Your task to perform on an android device: Clear the shopping cart on ebay.com. Search for logitech g933 on ebay.com, select the first entry, and add it to the cart. Image 0: 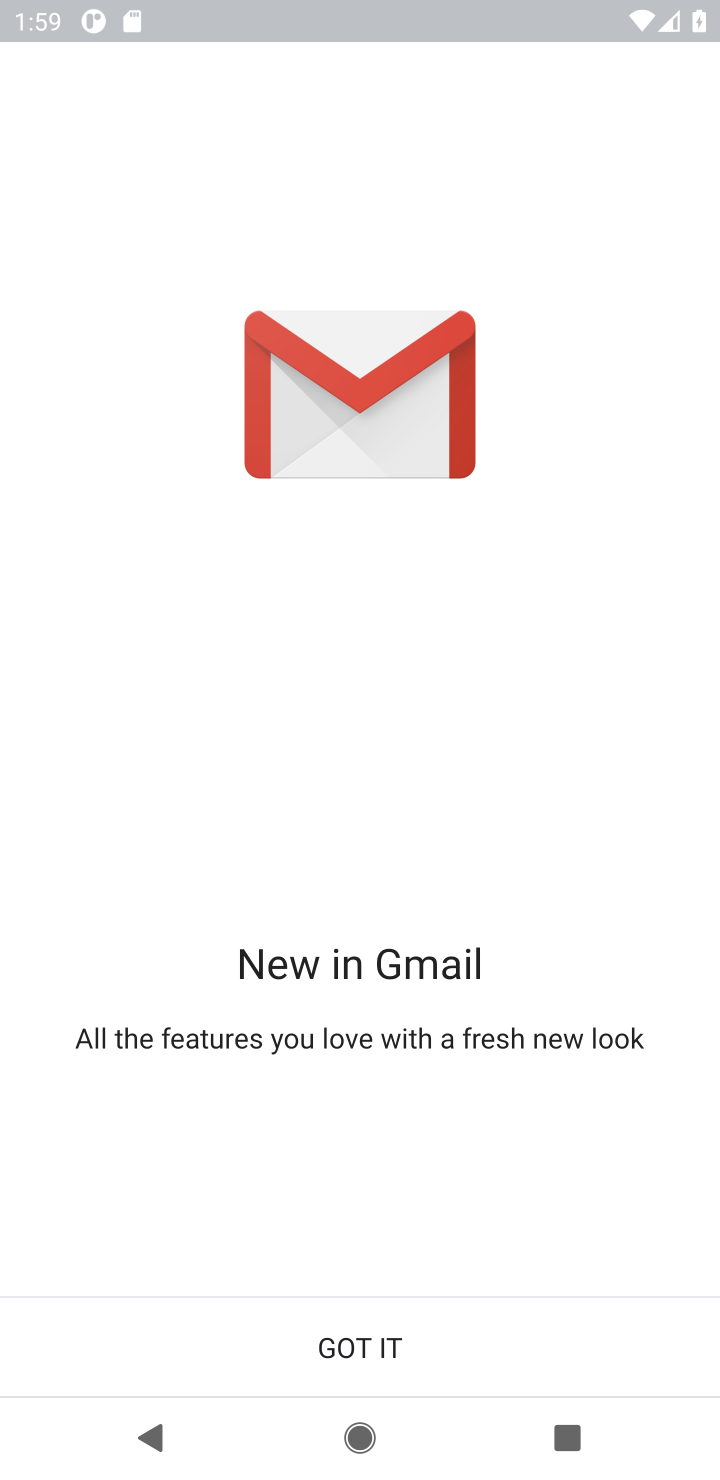
Step 0: press home button
Your task to perform on an android device: Clear the shopping cart on ebay.com. Search for logitech g933 on ebay.com, select the first entry, and add it to the cart. Image 1: 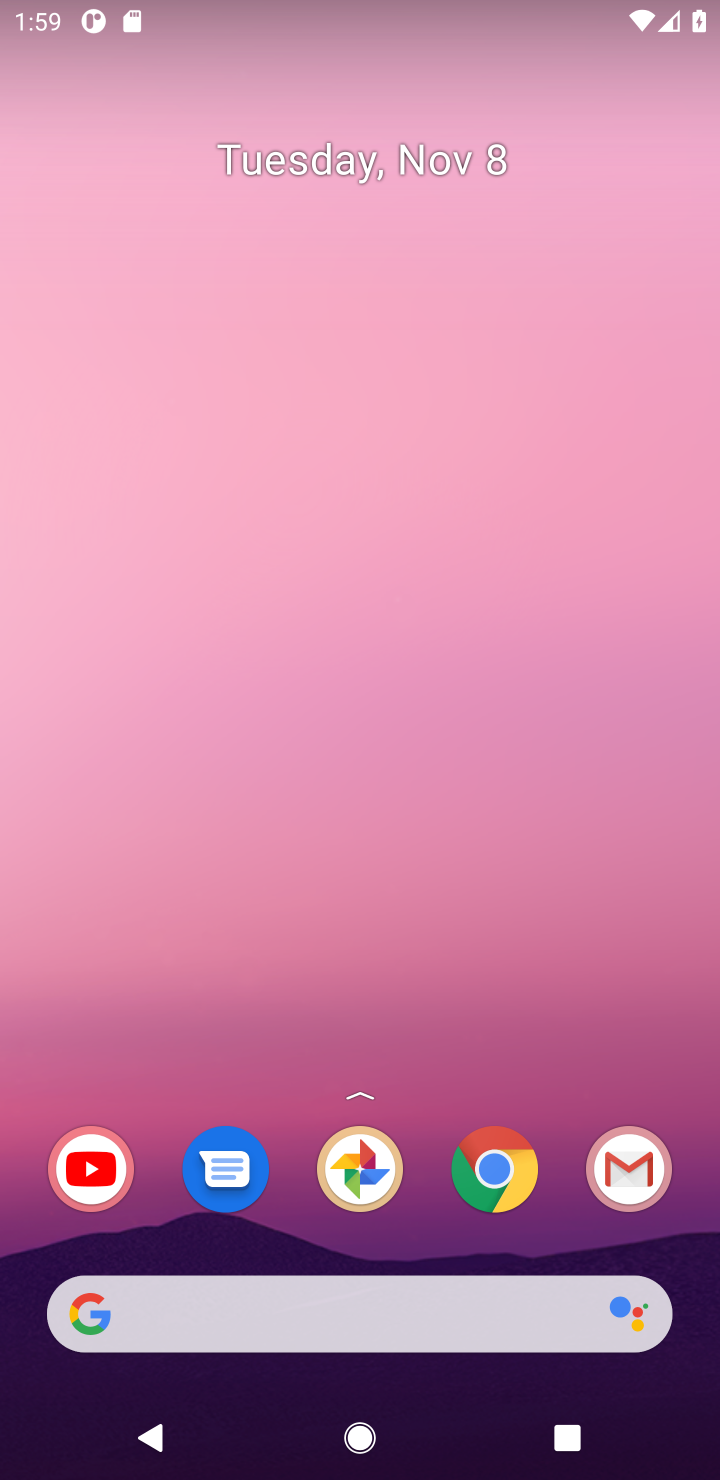
Step 1: click (460, 1191)
Your task to perform on an android device: Clear the shopping cart on ebay.com. Search for logitech g933 on ebay.com, select the first entry, and add it to the cart. Image 2: 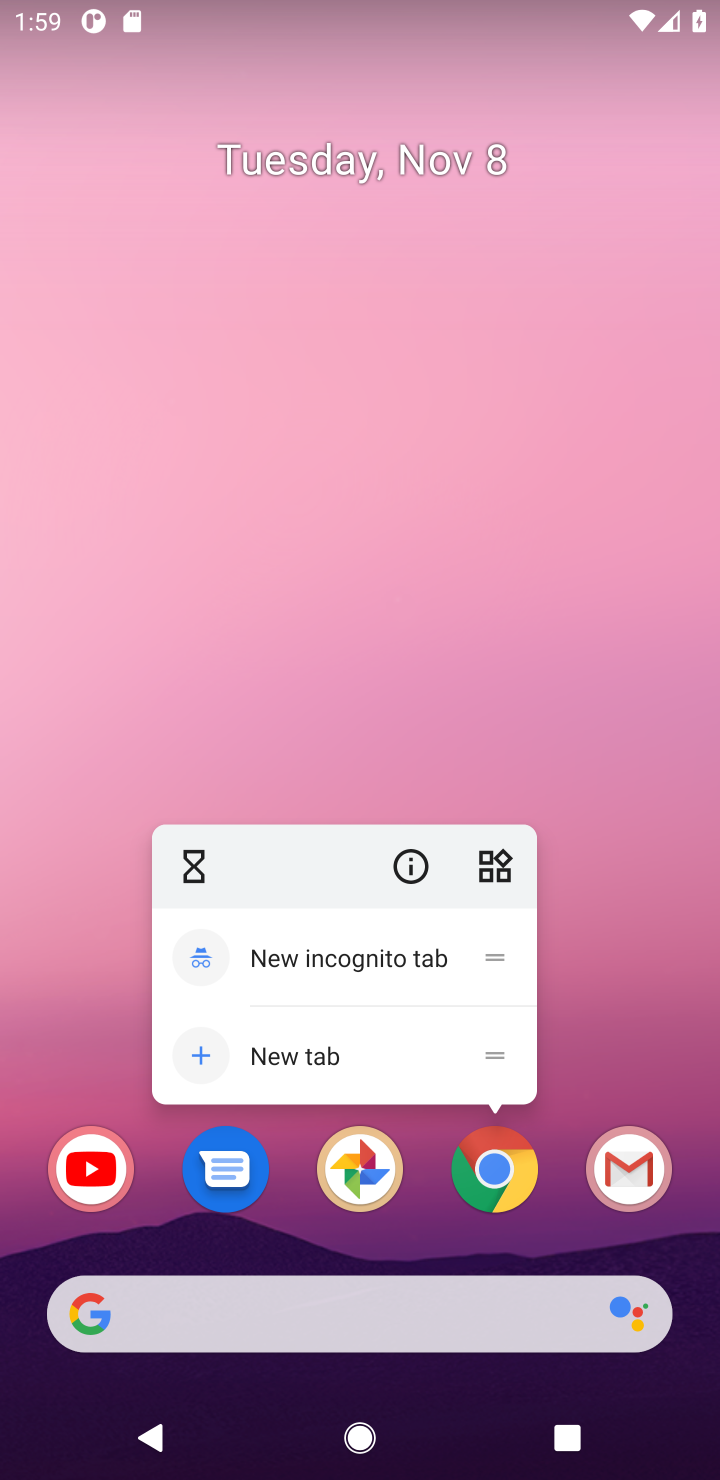
Step 2: click (512, 1170)
Your task to perform on an android device: Clear the shopping cart on ebay.com. Search for logitech g933 on ebay.com, select the first entry, and add it to the cart. Image 3: 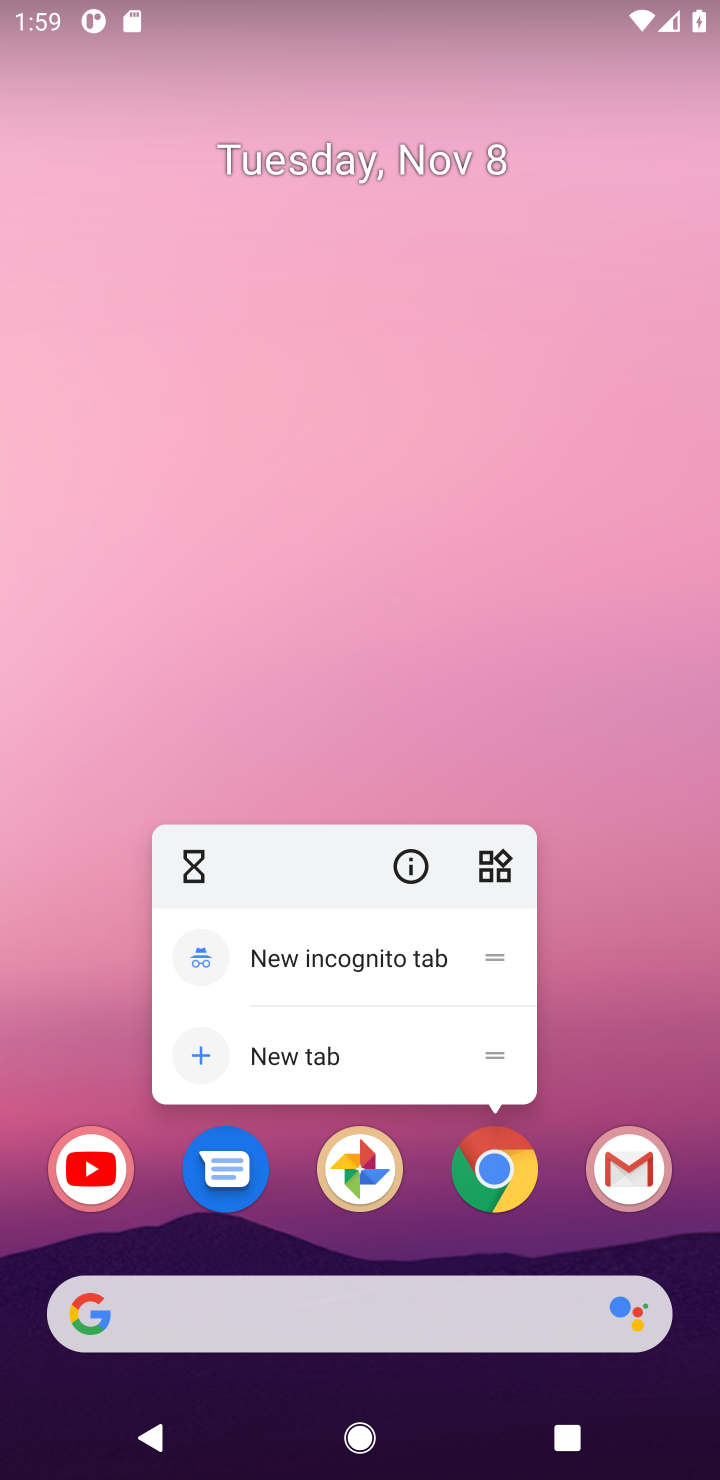
Step 3: click (455, 1179)
Your task to perform on an android device: Clear the shopping cart on ebay.com. Search for logitech g933 on ebay.com, select the first entry, and add it to the cart. Image 4: 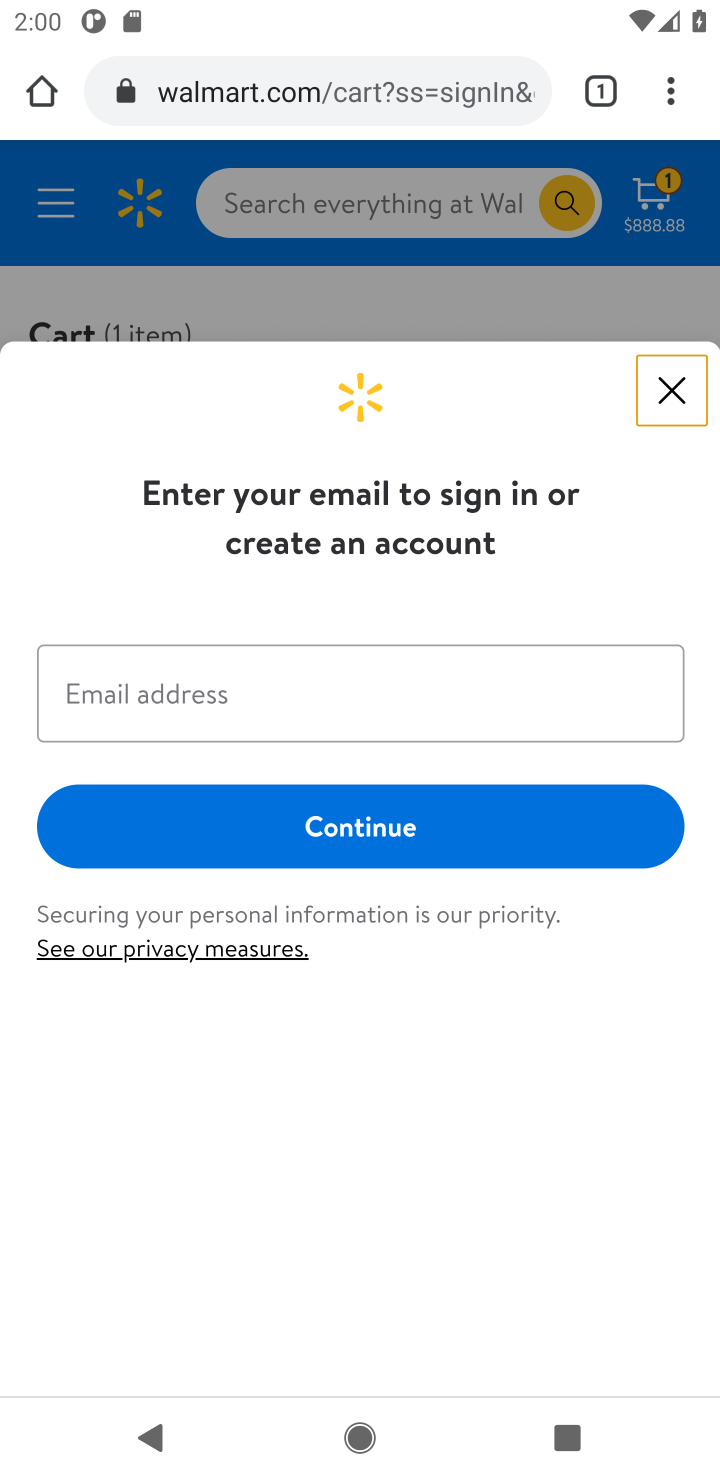
Step 4: click (375, 99)
Your task to perform on an android device: Clear the shopping cart on ebay.com. Search for logitech g933 on ebay.com, select the first entry, and add it to the cart. Image 5: 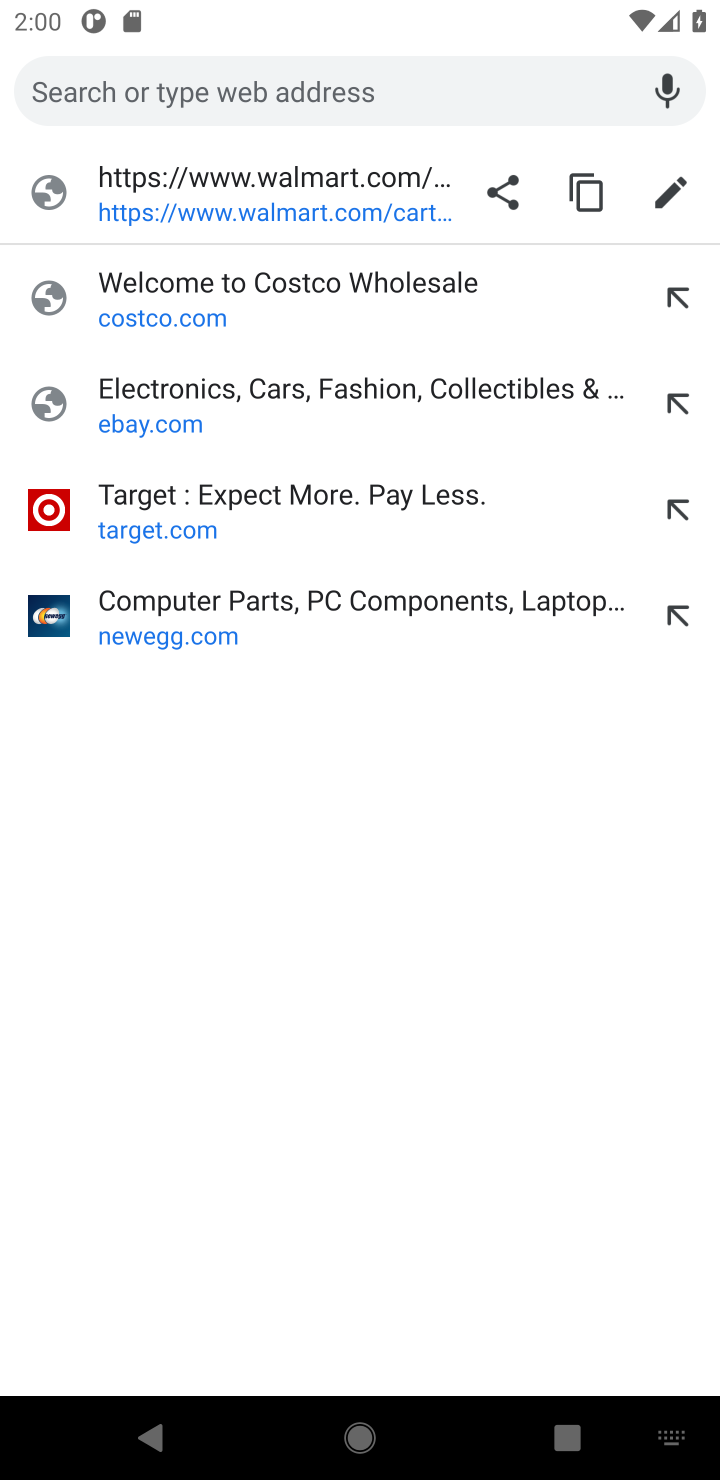
Step 5: type "ebay.com"
Your task to perform on an android device: Clear the shopping cart on ebay.com. Search for logitech g933 on ebay.com, select the first entry, and add it to the cart. Image 6: 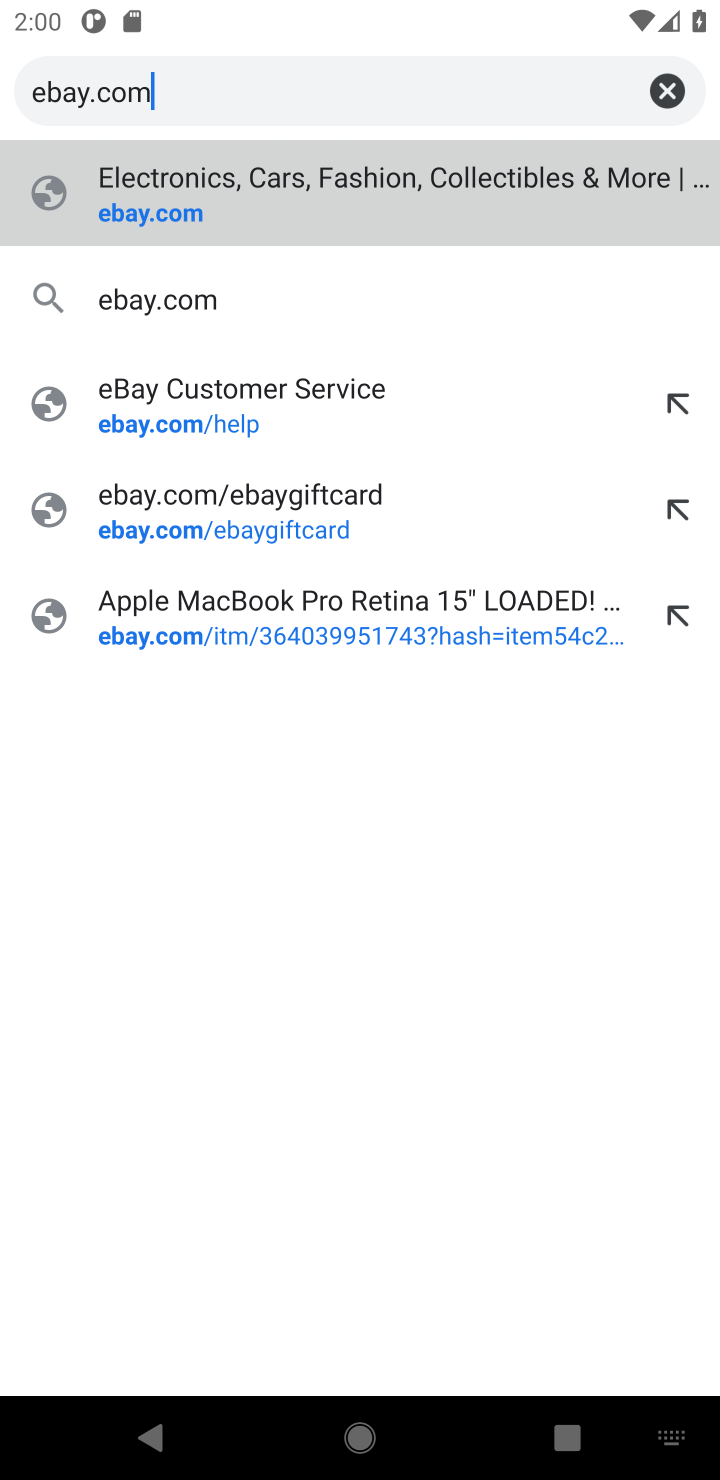
Step 6: click (217, 187)
Your task to perform on an android device: Clear the shopping cart on ebay.com. Search for logitech g933 on ebay.com, select the first entry, and add it to the cart. Image 7: 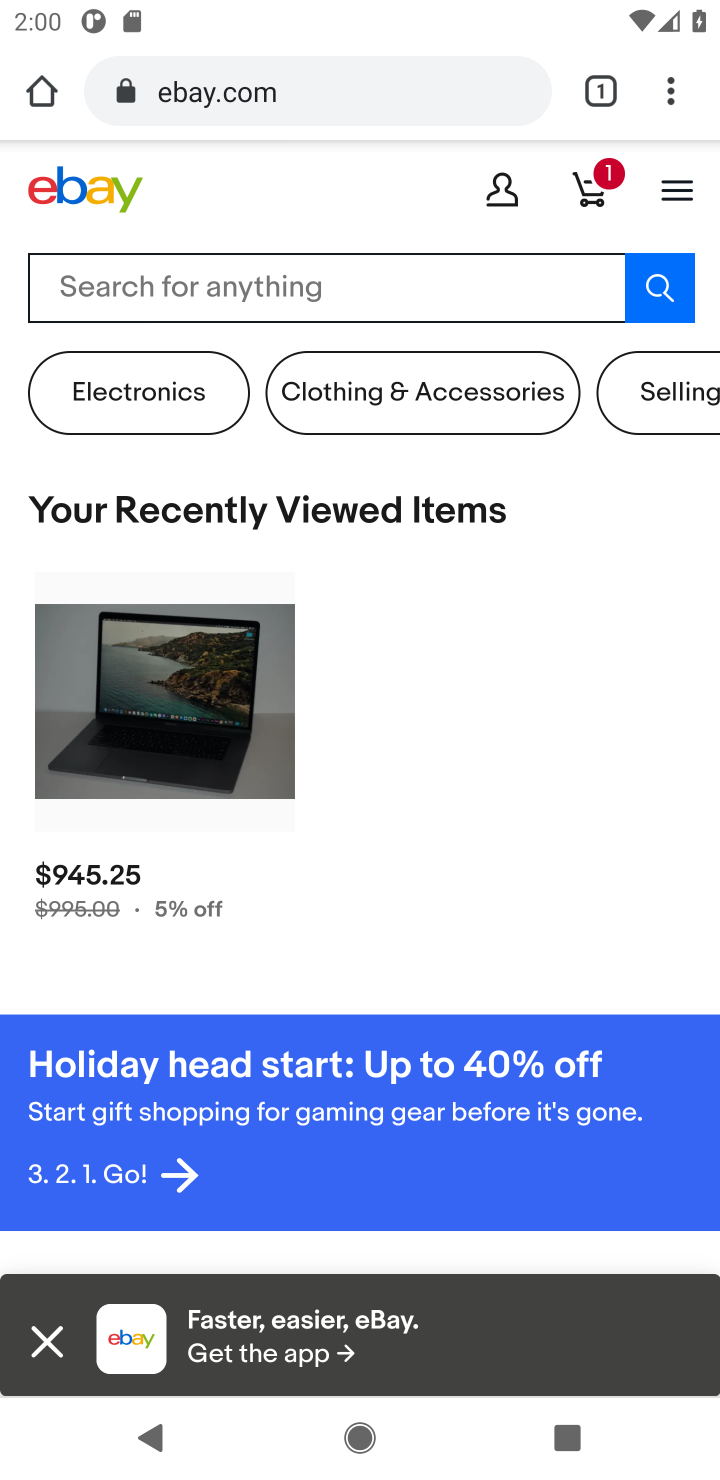
Step 7: click (256, 293)
Your task to perform on an android device: Clear the shopping cart on ebay.com. Search for logitech g933 on ebay.com, select the first entry, and add it to the cart. Image 8: 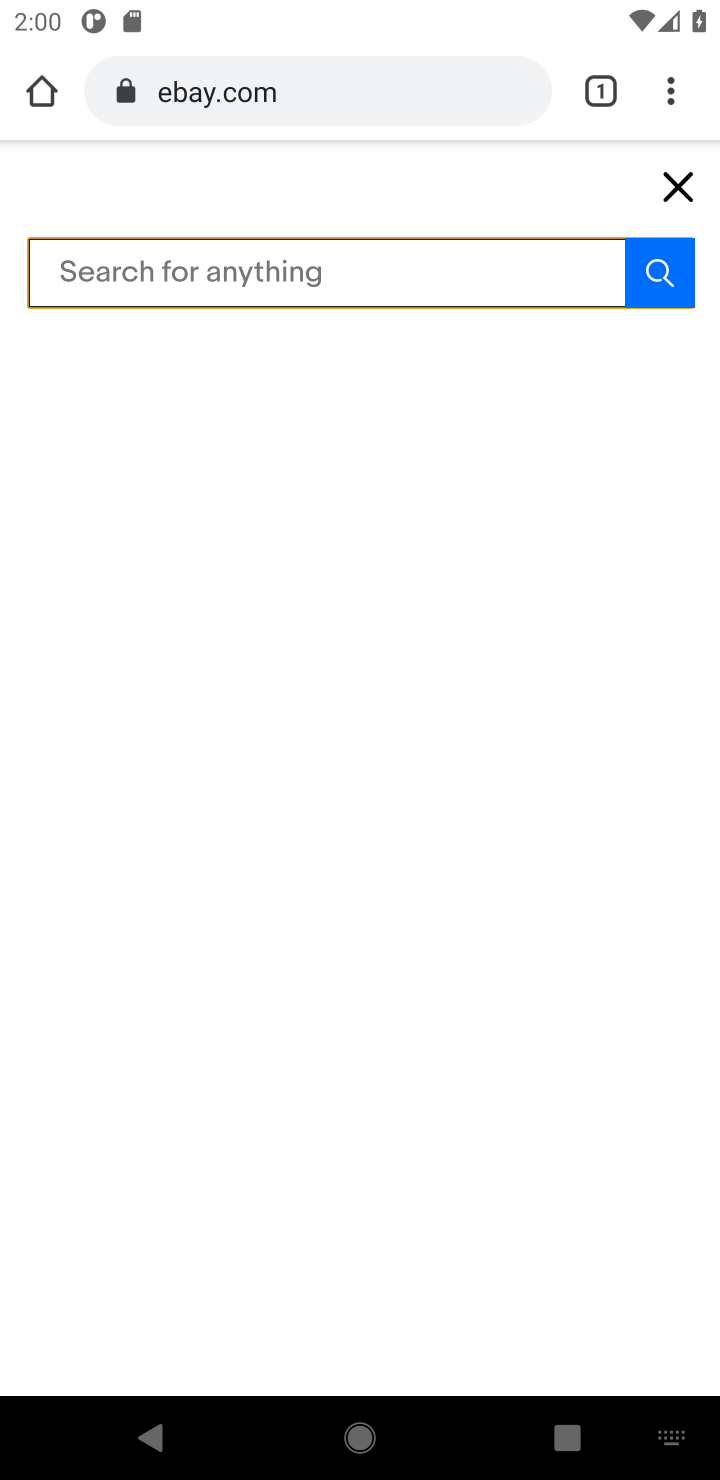
Step 8: type "logitech g933"
Your task to perform on an android device: Clear the shopping cart on ebay.com. Search for logitech g933 on ebay.com, select the first entry, and add it to the cart. Image 9: 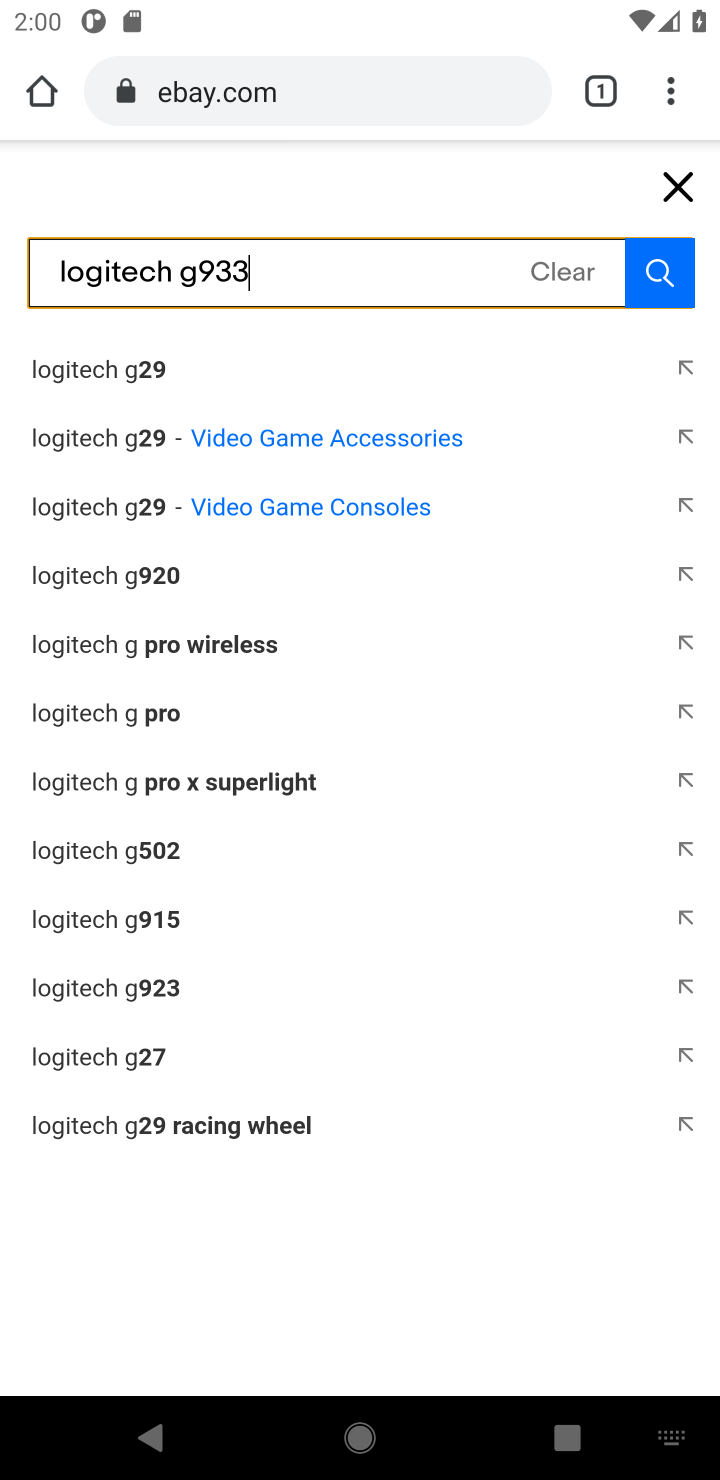
Step 9: press enter
Your task to perform on an android device: Clear the shopping cart on ebay.com. Search for logitech g933 on ebay.com, select the first entry, and add it to the cart. Image 10: 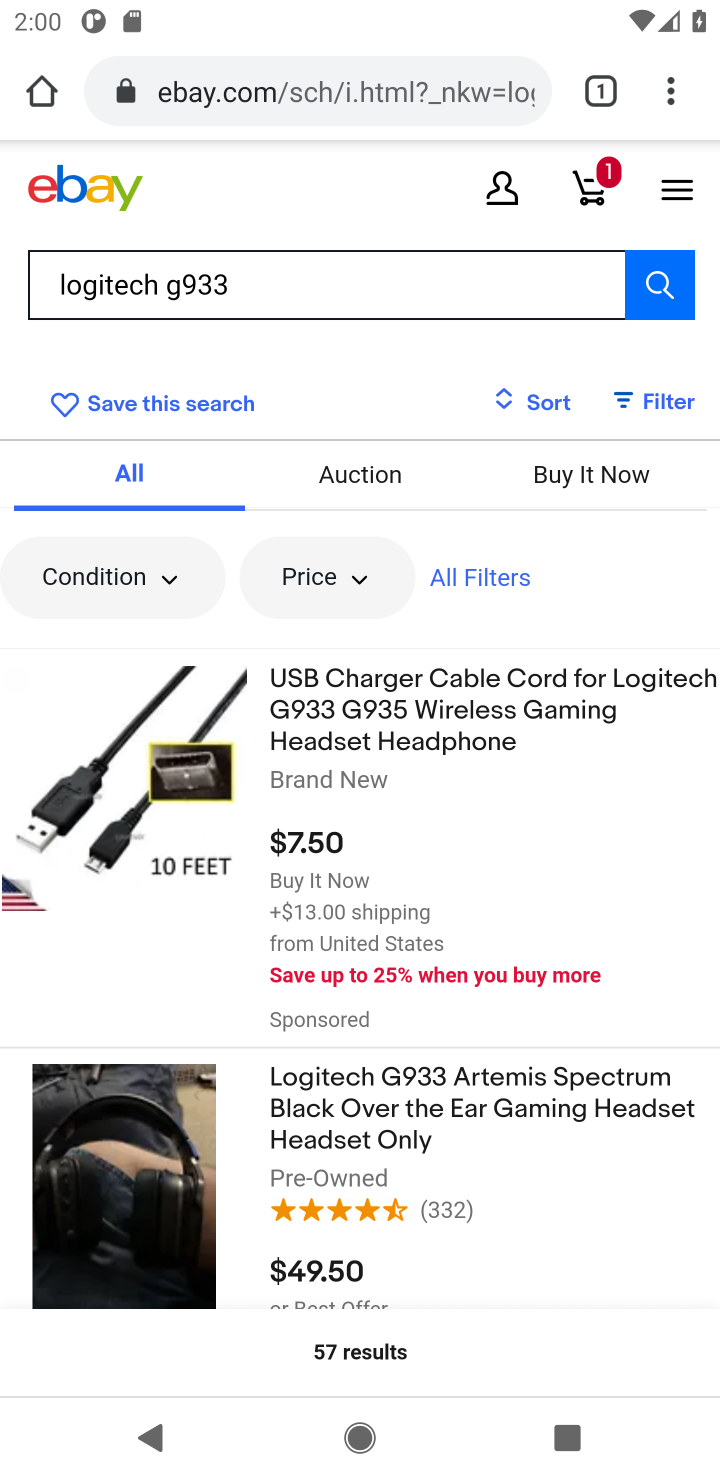
Step 10: click (258, 807)
Your task to perform on an android device: Clear the shopping cart on ebay.com. Search for logitech g933 on ebay.com, select the first entry, and add it to the cart. Image 11: 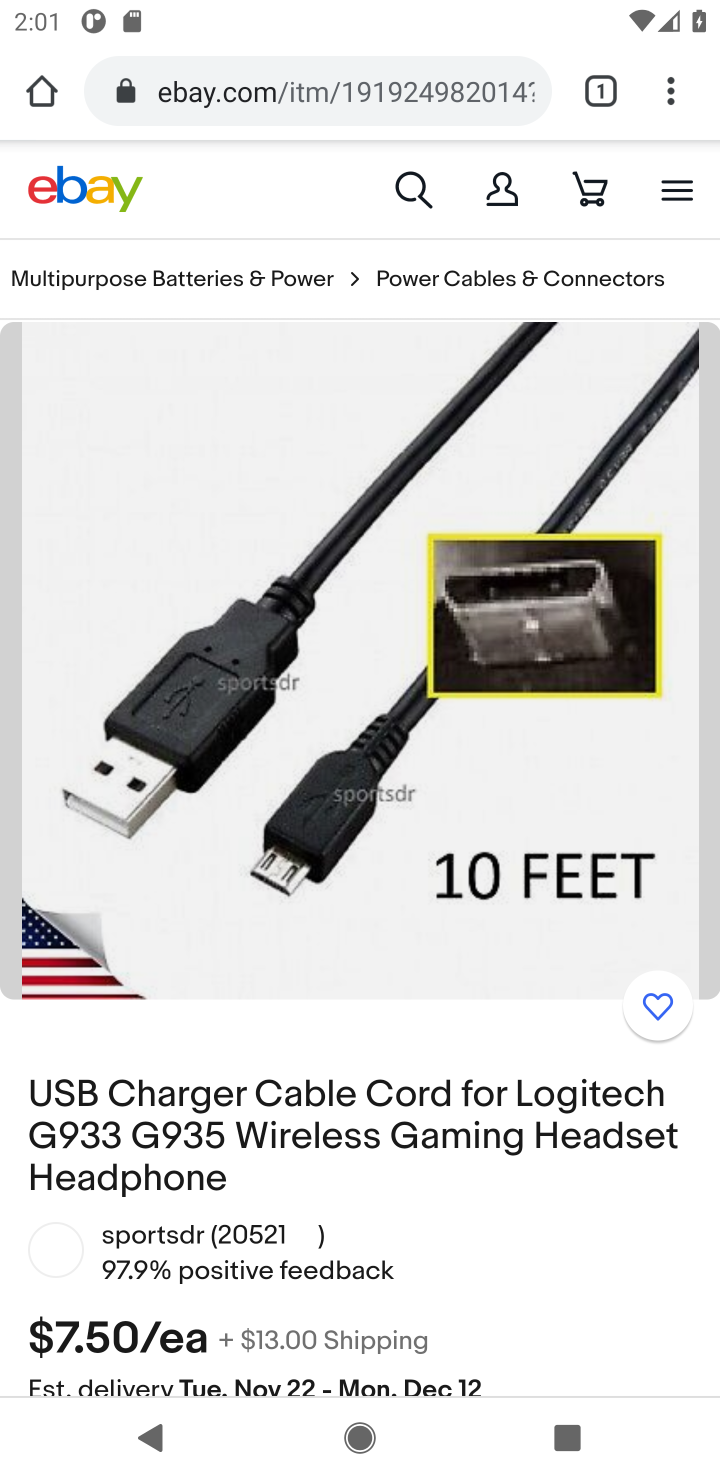
Step 11: drag from (462, 1150) to (247, 323)
Your task to perform on an android device: Clear the shopping cart on ebay.com. Search for logitech g933 on ebay.com, select the first entry, and add it to the cart. Image 12: 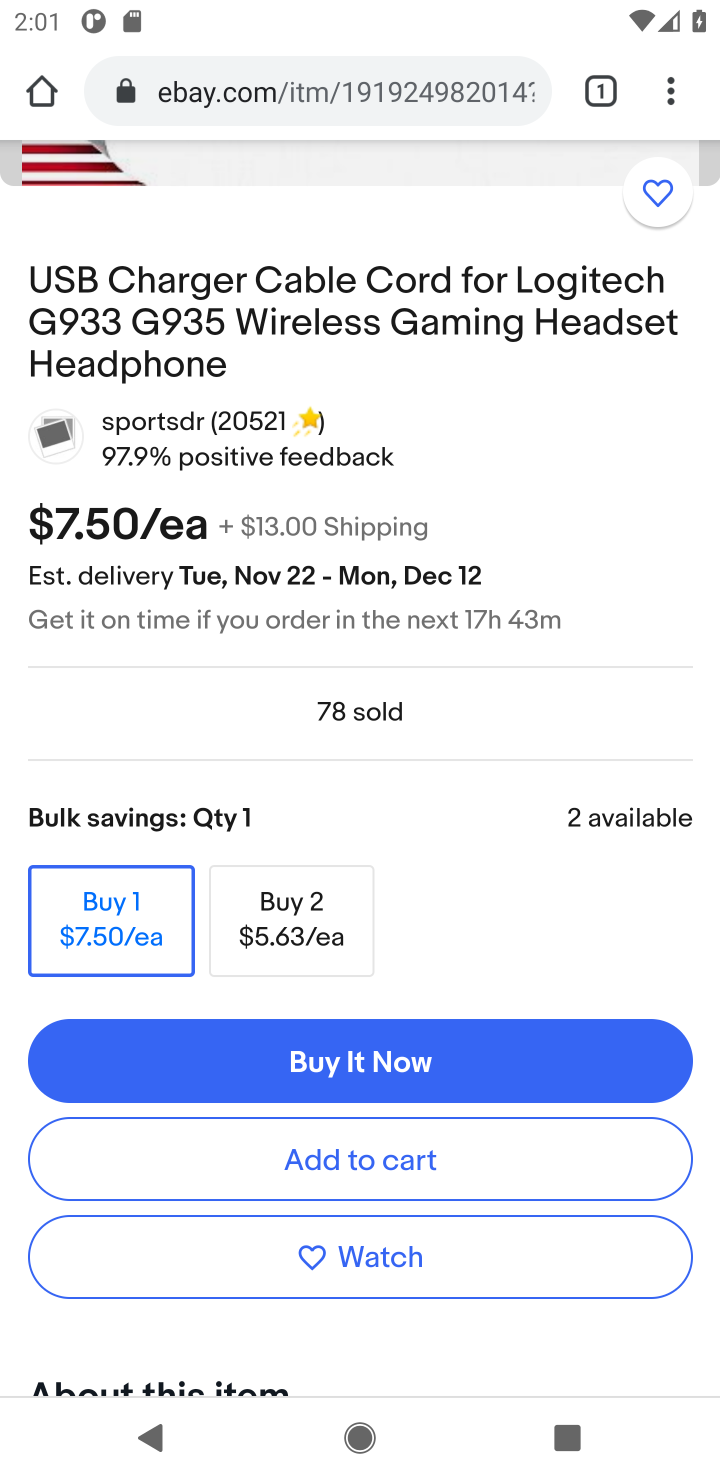
Step 12: drag from (511, 1288) to (447, 857)
Your task to perform on an android device: Clear the shopping cart on ebay.com. Search for logitech g933 on ebay.com, select the first entry, and add it to the cart. Image 13: 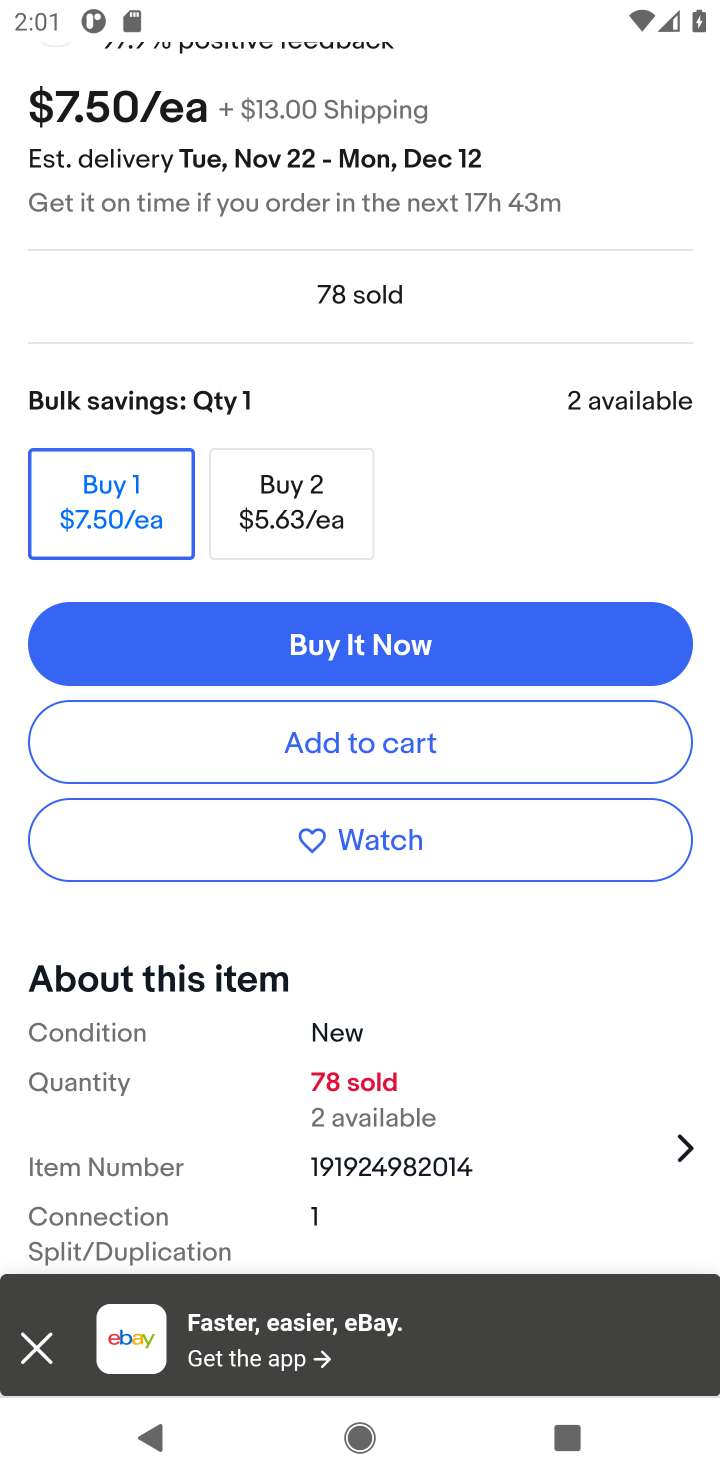
Step 13: click (349, 760)
Your task to perform on an android device: Clear the shopping cart on ebay.com. Search for logitech g933 on ebay.com, select the first entry, and add it to the cart. Image 14: 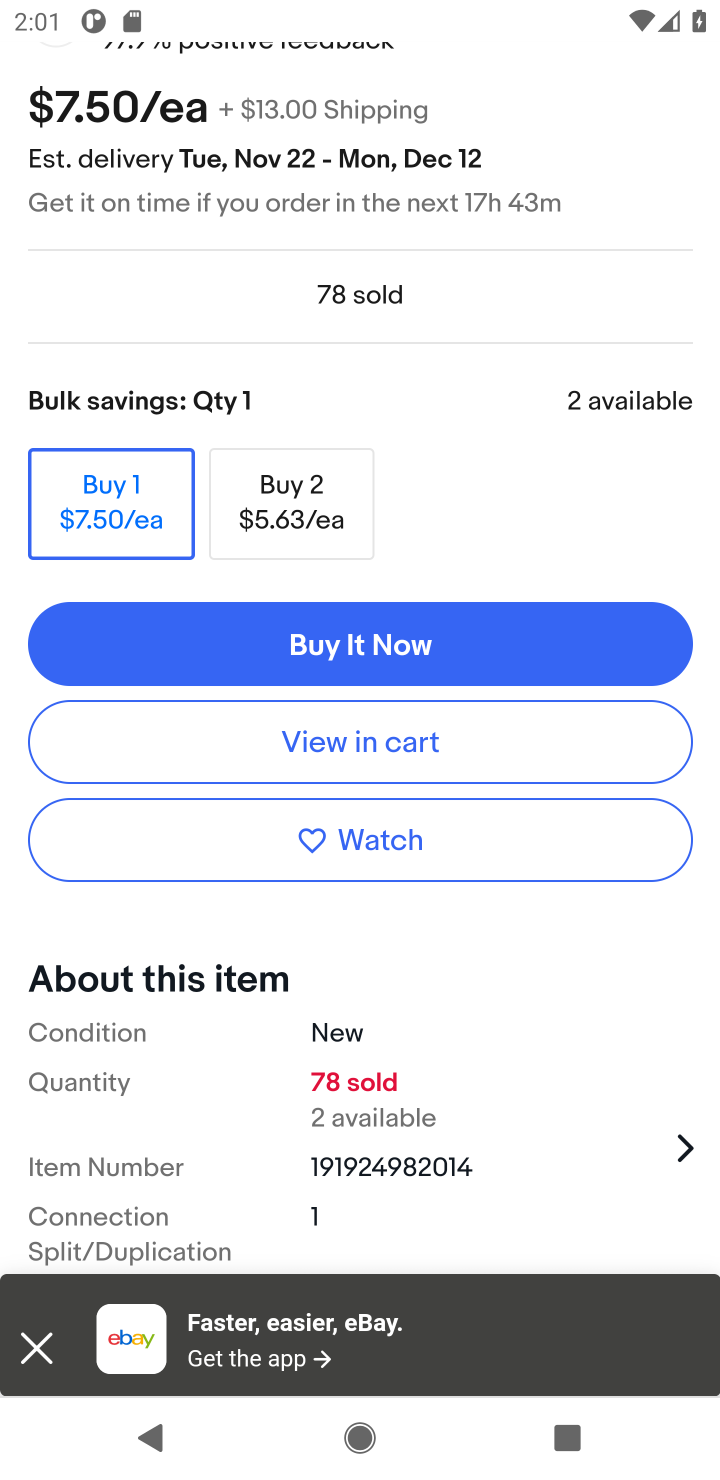
Step 14: task complete